Your task to perform on an android device: Go to privacy settings Image 0: 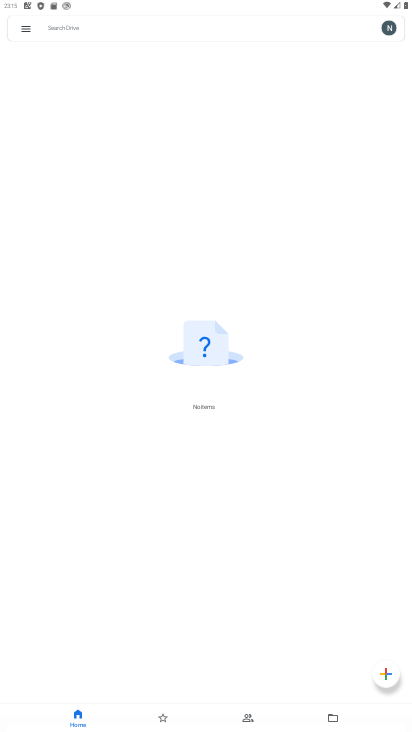
Step 0: press home button
Your task to perform on an android device: Go to privacy settings Image 1: 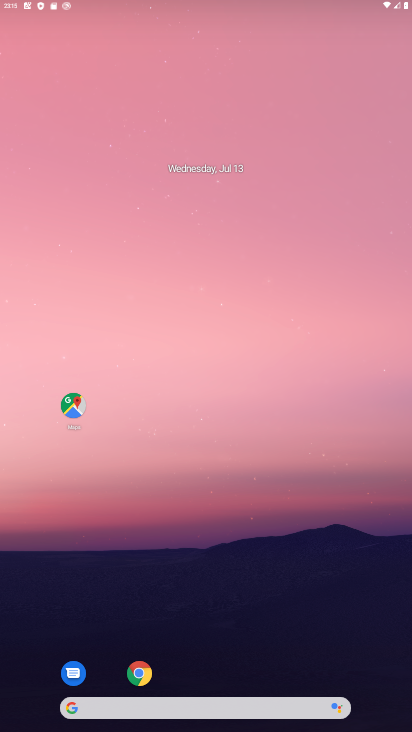
Step 1: drag from (206, 619) to (188, 51)
Your task to perform on an android device: Go to privacy settings Image 2: 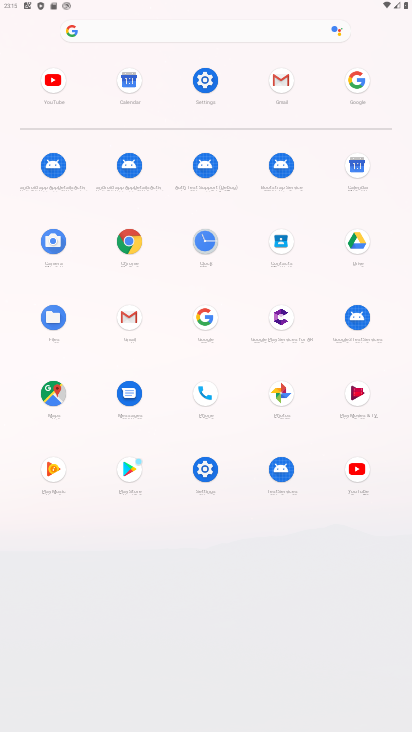
Step 2: click (196, 75)
Your task to perform on an android device: Go to privacy settings Image 3: 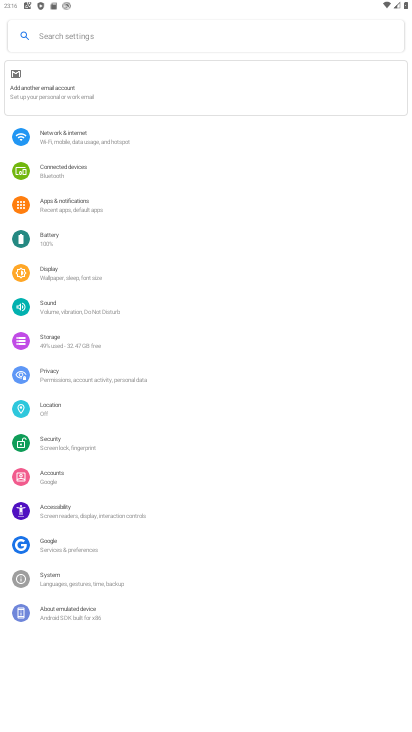
Step 3: click (70, 376)
Your task to perform on an android device: Go to privacy settings Image 4: 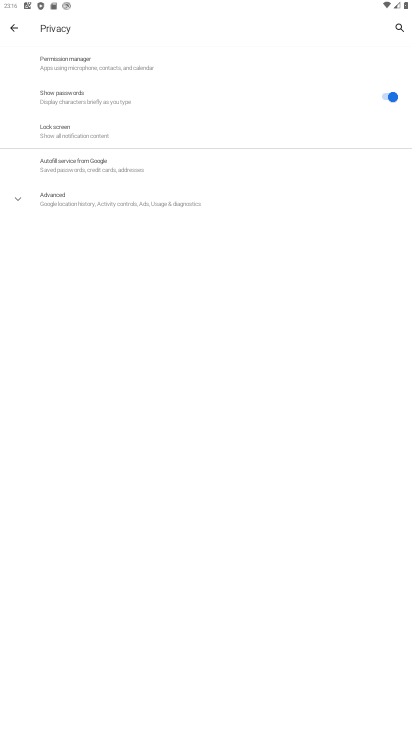
Step 4: task complete